Your task to perform on an android device: set default search engine in the chrome app Image 0: 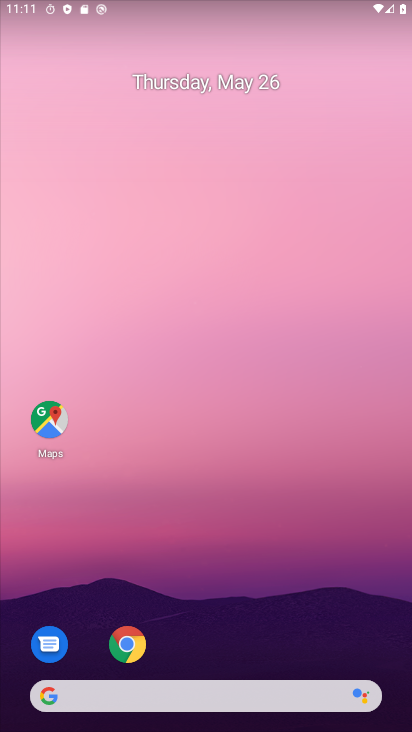
Step 0: click (136, 652)
Your task to perform on an android device: set default search engine in the chrome app Image 1: 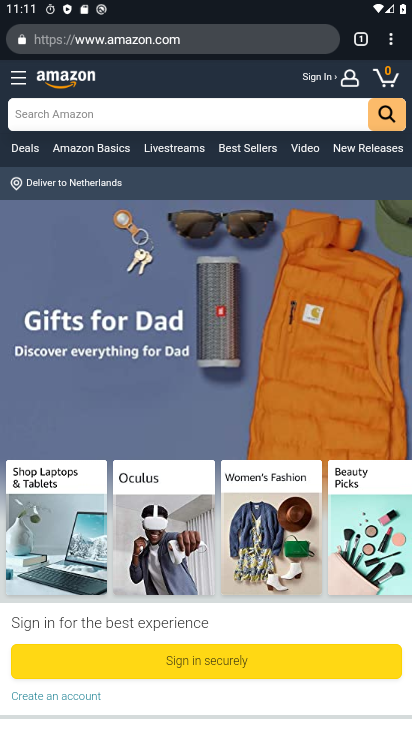
Step 1: click (389, 41)
Your task to perform on an android device: set default search engine in the chrome app Image 2: 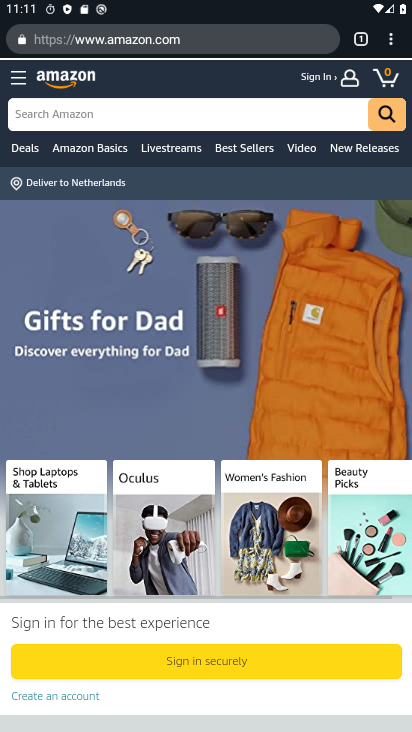
Step 2: click (392, 41)
Your task to perform on an android device: set default search engine in the chrome app Image 3: 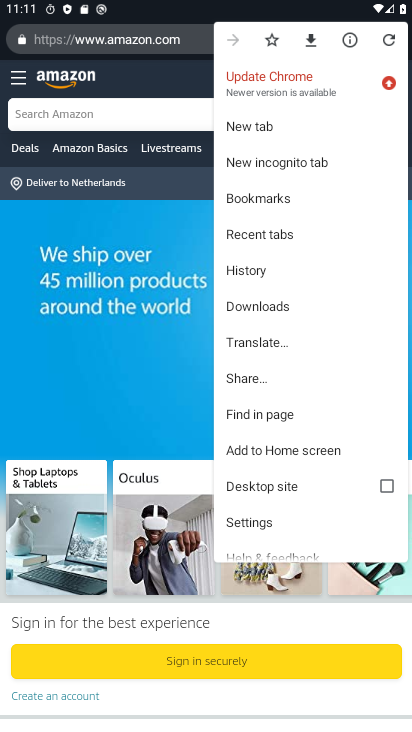
Step 3: click (263, 523)
Your task to perform on an android device: set default search engine in the chrome app Image 4: 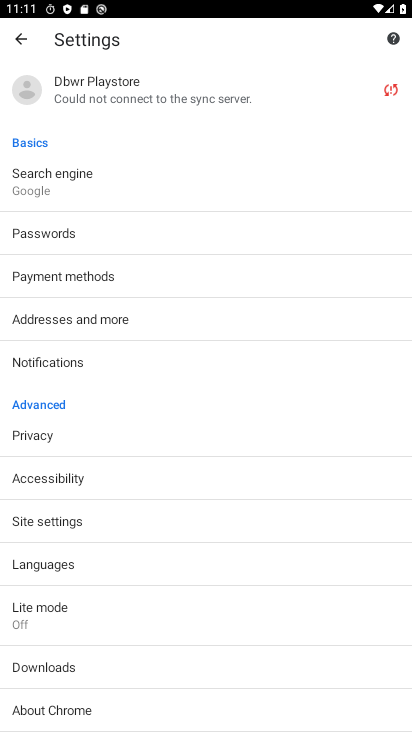
Step 4: click (80, 183)
Your task to perform on an android device: set default search engine in the chrome app Image 5: 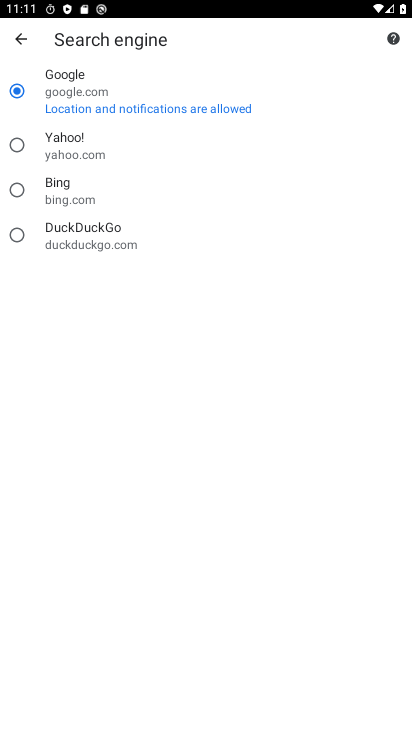
Step 5: click (77, 181)
Your task to perform on an android device: set default search engine in the chrome app Image 6: 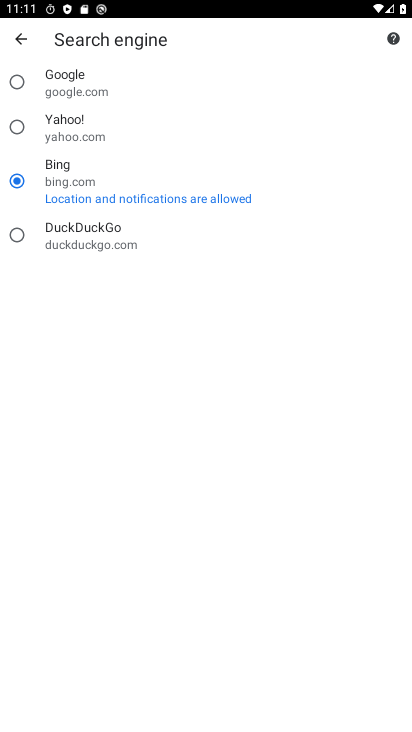
Step 6: task complete